Your task to perform on an android device: Show me productivity apps on the Play Store Image 0: 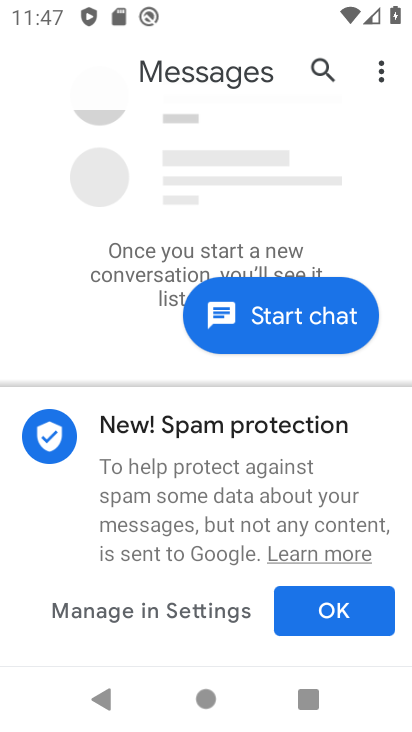
Step 0: press home button
Your task to perform on an android device: Show me productivity apps on the Play Store Image 1: 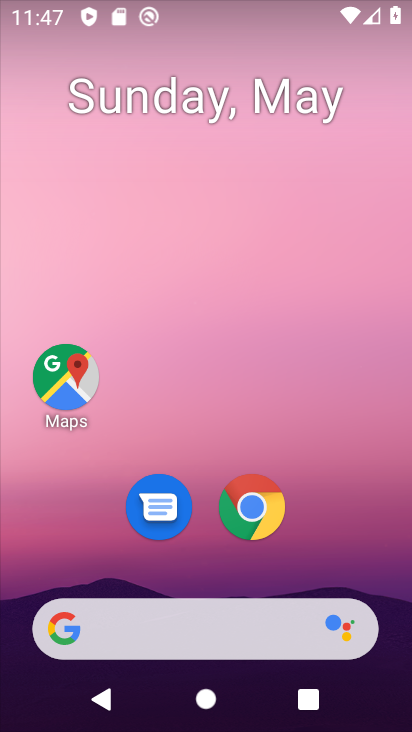
Step 1: drag from (197, 728) to (202, 69)
Your task to perform on an android device: Show me productivity apps on the Play Store Image 2: 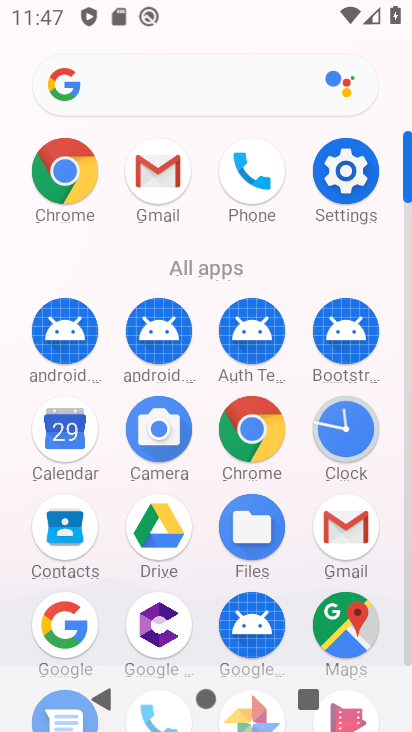
Step 2: drag from (211, 664) to (210, 167)
Your task to perform on an android device: Show me productivity apps on the Play Store Image 3: 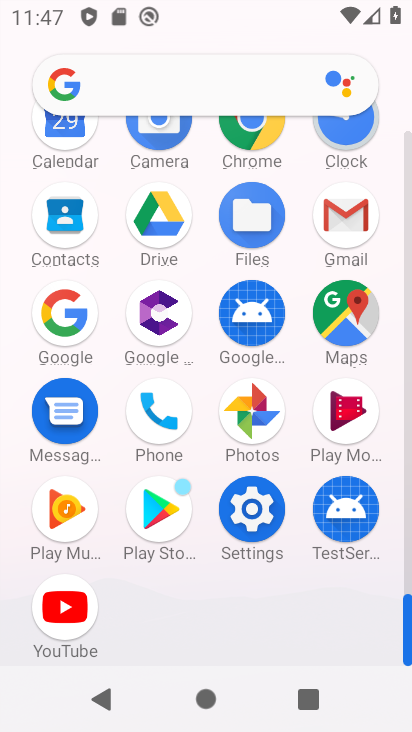
Step 3: click (151, 510)
Your task to perform on an android device: Show me productivity apps on the Play Store Image 4: 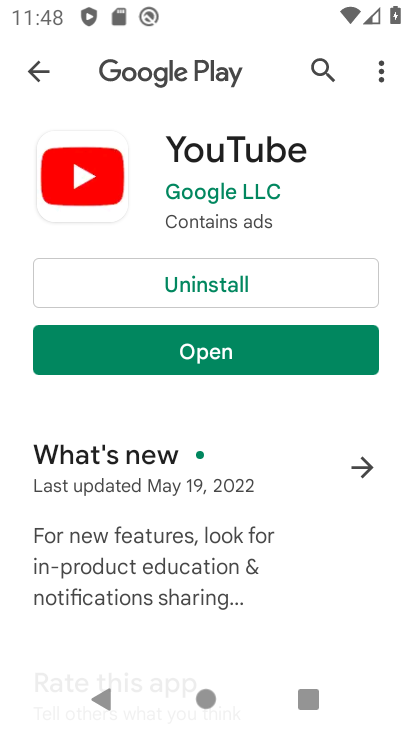
Step 4: click (37, 71)
Your task to perform on an android device: Show me productivity apps on the Play Store Image 5: 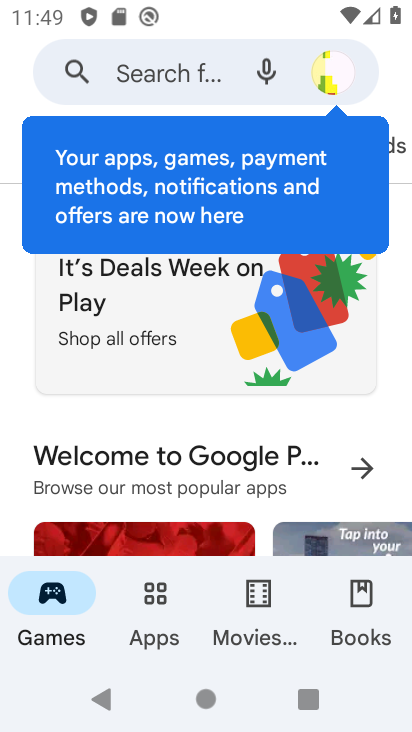
Step 5: click (154, 632)
Your task to perform on an android device: Show me productivity apps on the Play Store Image 6: 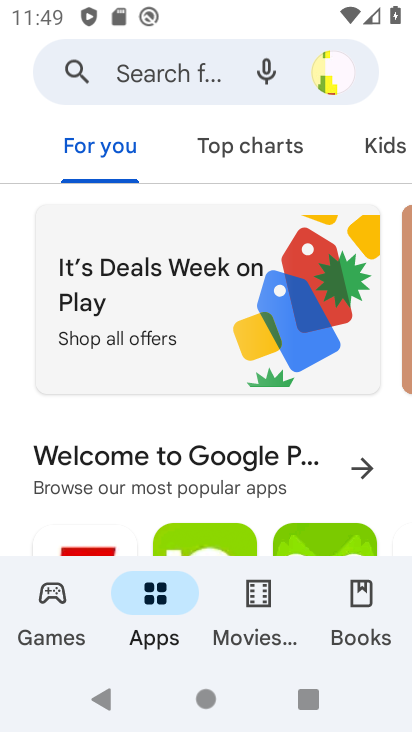
Step 6: drag from (373, 142) to (131, 146)
Your task to perform on an android device: Show me productivity apps on the Play Store Image 7: 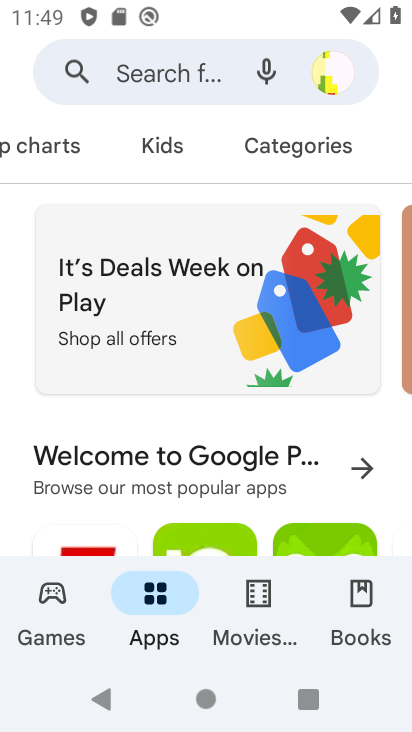
Step 7: click (311, 147)
Your task to perform on an android device: Show me productivity apps on the Play Store Image 8: 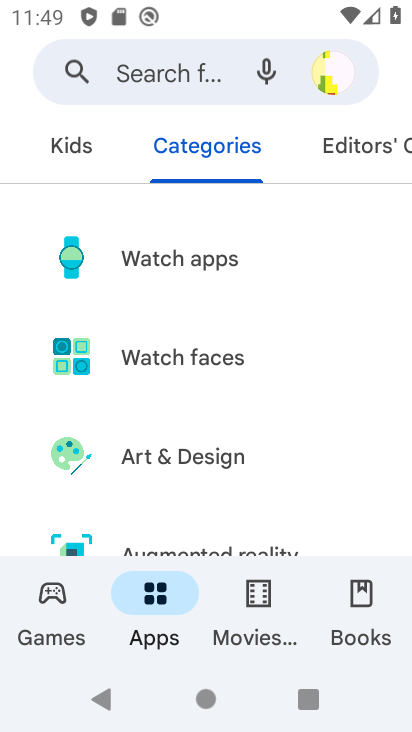
Step 8: drag from (348, 145) to (142, 135)
Your task to perform on an android device: Show me productivity apps on the Play Store Image 9: 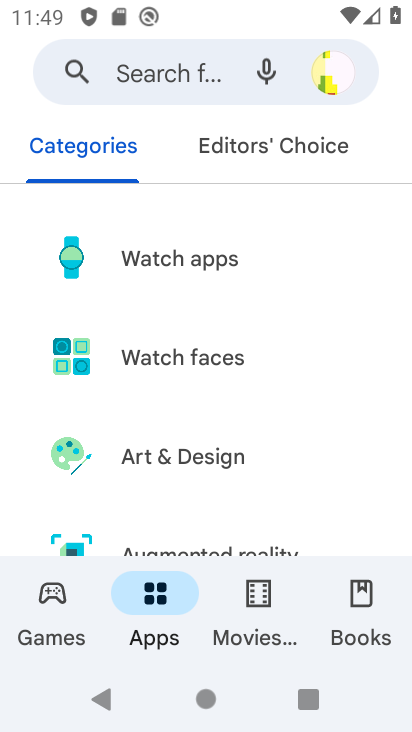
Step 9: drag from (363, 146) to (98, 120)
Your task to perform on an android device: Show me productivity apps on the Play Store Image 10: 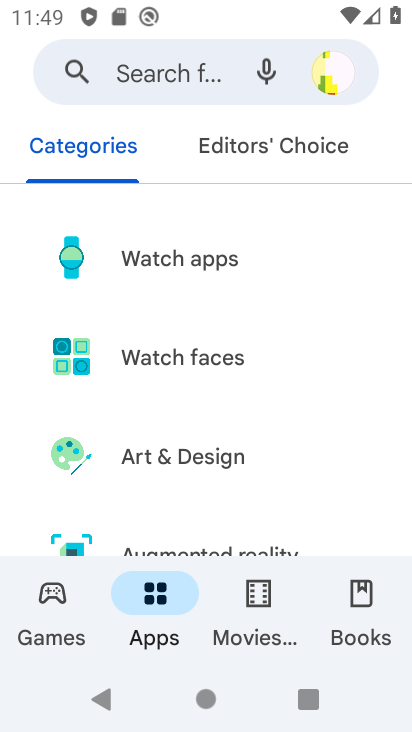
Step 10: drag from (343, 147) to (82, 124)
Your task to perform on an android device: Show me productivity apps on the Play Store Image 11: 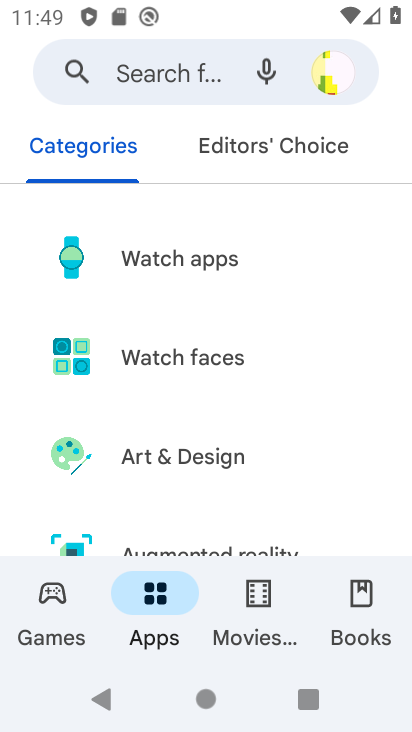
Step 11: drag from (229, 510) to (217, 137)
Your task to perform on an android device: Show me productivity apps on the Play Store Image 12: 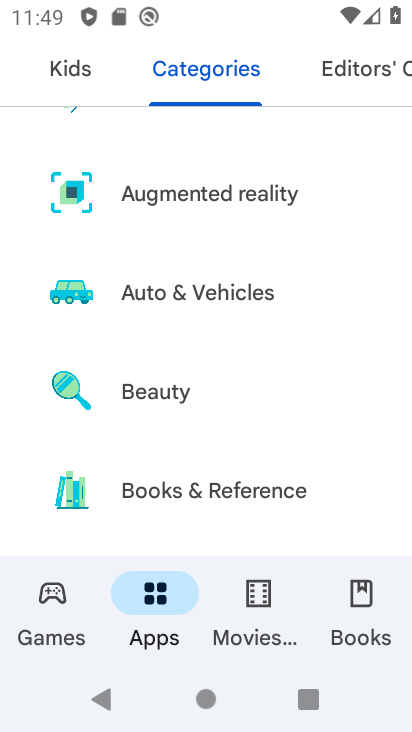
Step 12: drag from (184, 524) to (178, 231)
Your task to perform on an android device: Show me productivity apps on the Play Store Image 13: 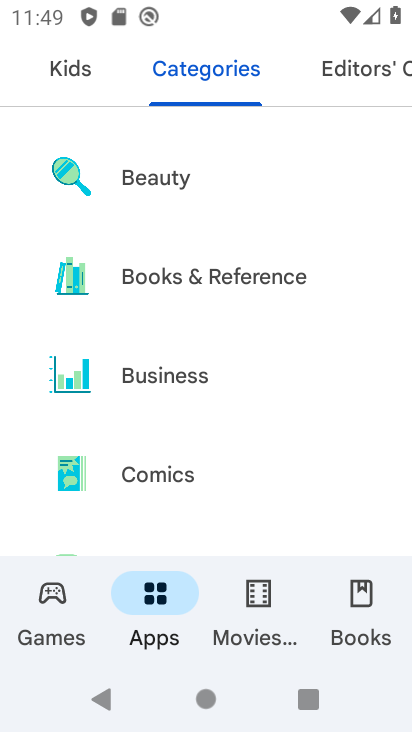
Step 13: drag from (204, 522) to (208, 191)
Your task to perform on an android device: Show me productivity apps on the Play Store Image 14: 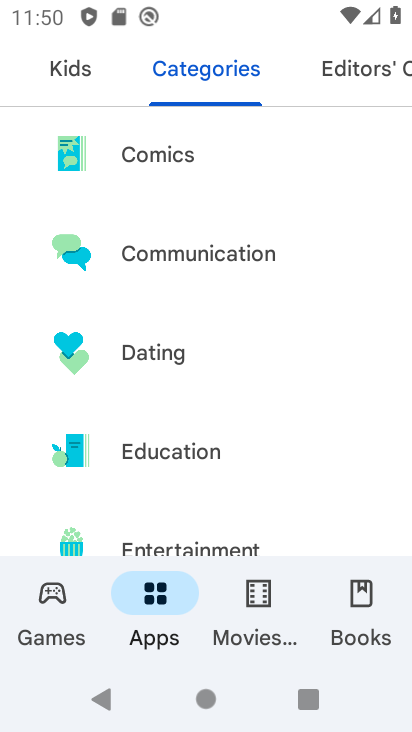
Step 14: drag from (211, 542) to (211, 133)
Your task to perform on an android device: Show me productivity apps on the Play Store Image 15: 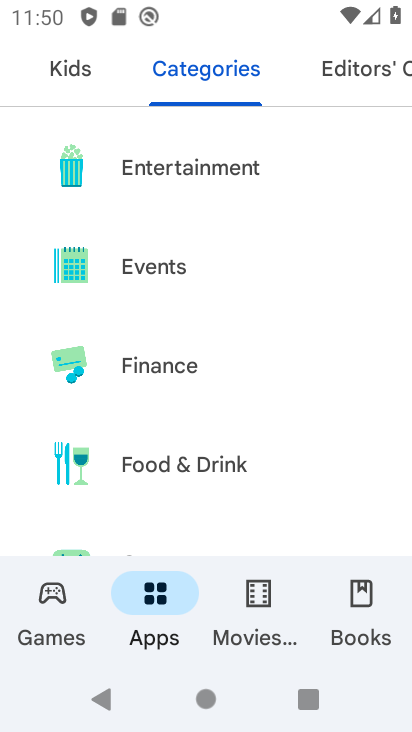
Step 15: drag from (219, 535) to (219, 159)
Your task to perform on an android device: Show me productivity apps on the Play Store Image 16: 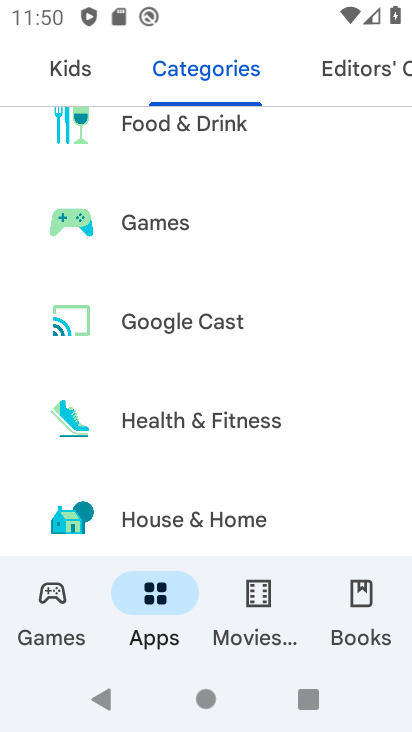
Step 16: drag from (217, 536) to (218, 126)
Your task to perform on an android device: Show me productivity apps on the Play Store Image 17: 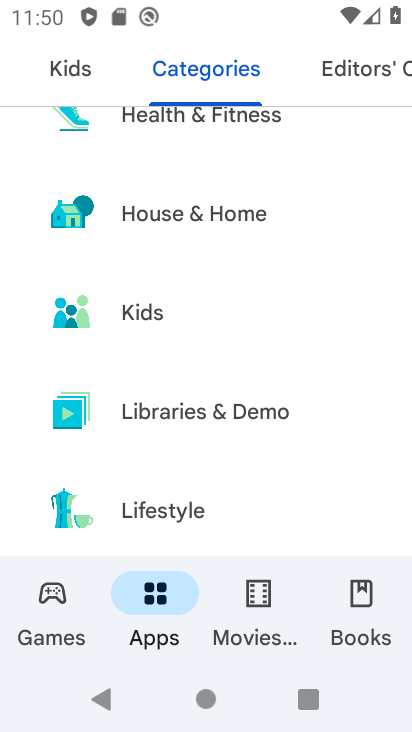
Step 17: drag from (208, 530) to (213, 136)
Your task to perform on an android device: Show me productivity apps on the Play Store Image 18: 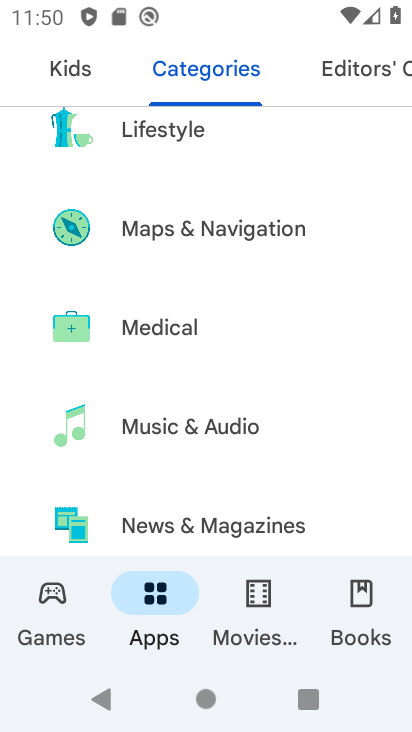
Step 18: drag from (205, 538) to (214, 121)
Your task to perform on an android device: Show me productivity apps on the Play Store Image 19: 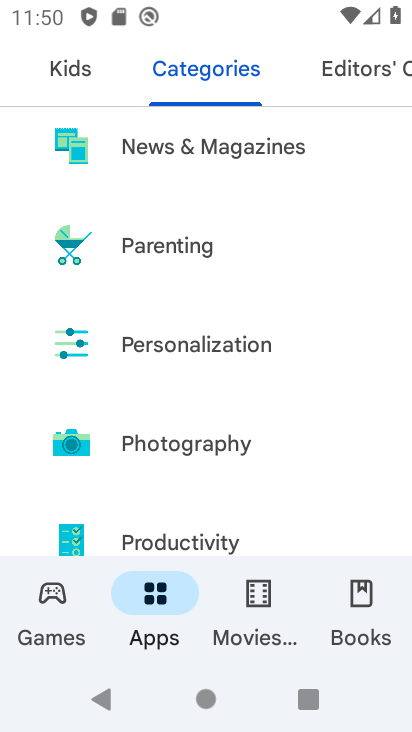
Step 19: click (204, 544)
Your task to perform on an android device: Show me productivity apps on the Play Store Image 20: 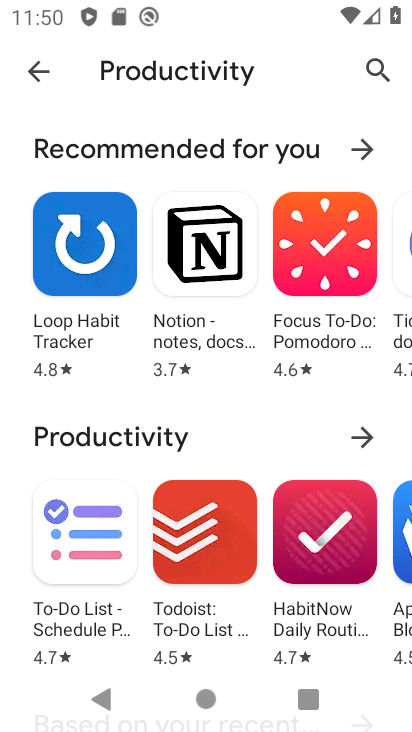
Step 20: task complete